Your task to perform on an android device: Go to network settings Image 0: 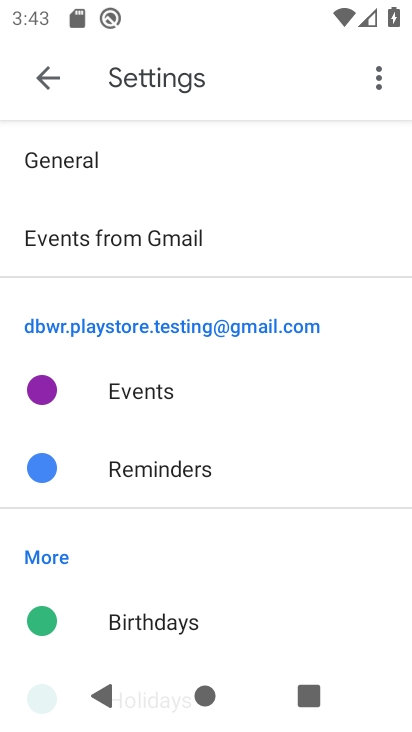
Step 0: press back button
Your task to perform on an android device: Go to network settings Image 1: 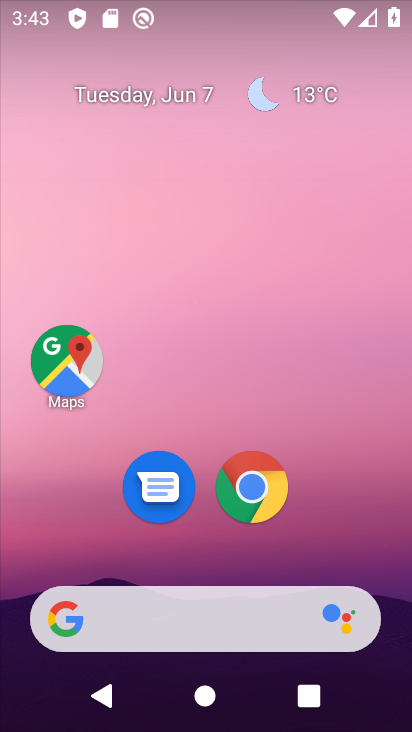
Step 1: drag from (212, 569) to (267, 20)
Your task to perform on an android device: Go to network settings Image 2: 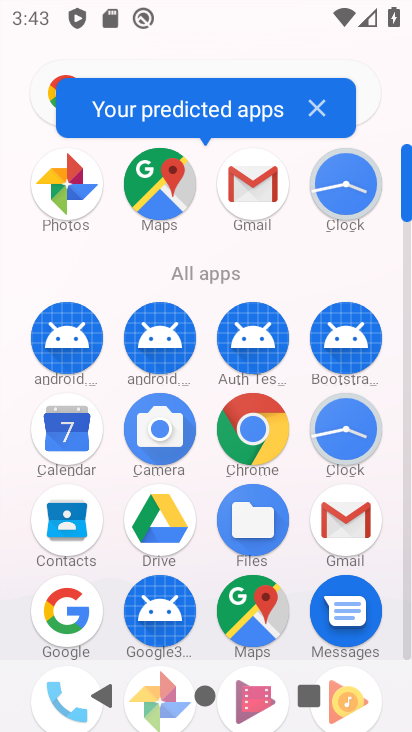
Step 2: drag from (191, 602) to (309, 74)
Your task to perform on an android device: Go to network settings Image 3: 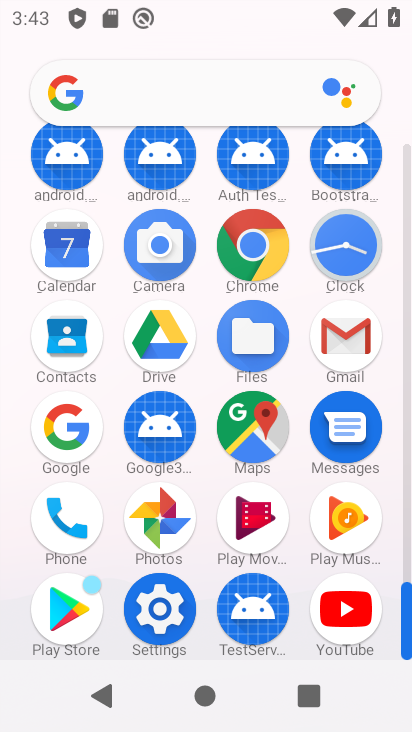
Step 3: click (157, 609)
Your task to perform on an android device: Go to network settings Image 4: 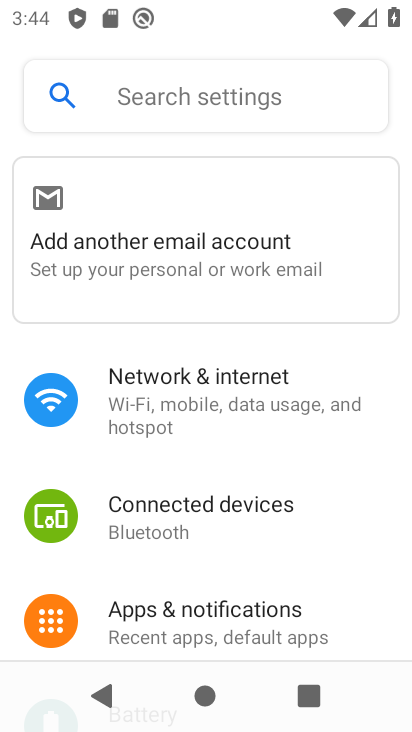
Step 4: click (180, 407)
Your task to perform on an android device: Go to network settings Image 5: 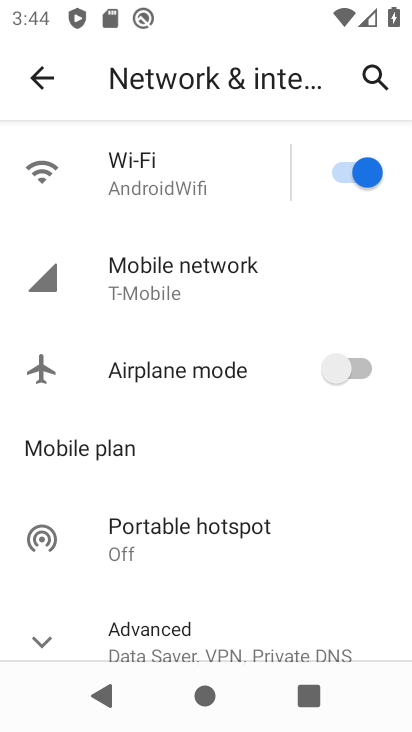
Step 5: task complete